Your task to perform on an android device: Go to location settings Image 0: 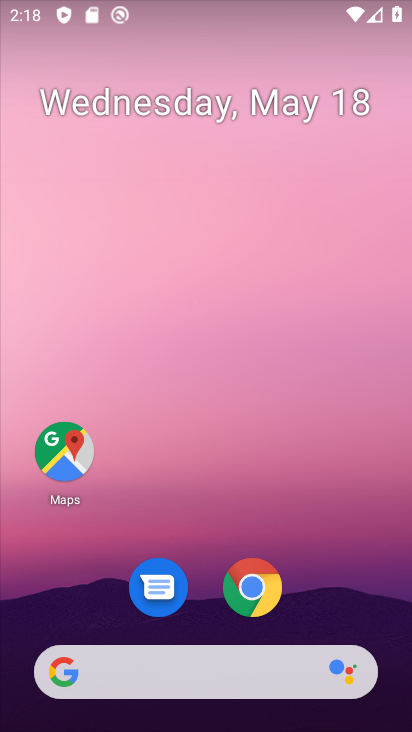
Step 0: drag from (366, 643) to (355, 85)
Your task to perform on an android device: Go to location settings Image 1: 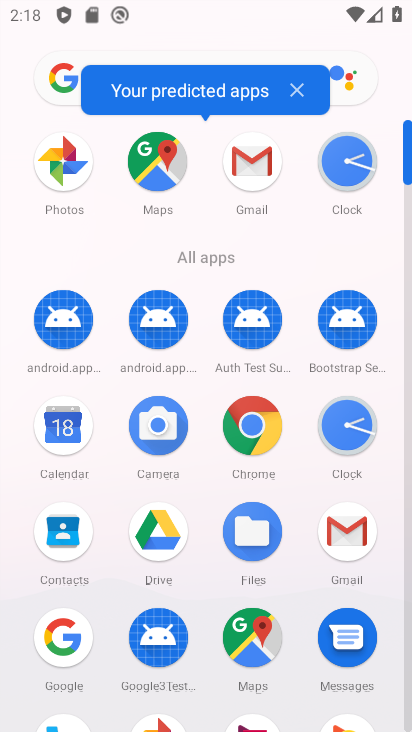
Step 1: drag from (293, 268) to (298, 81)
Your task to perform on an android device: Go to location settings Image 2: 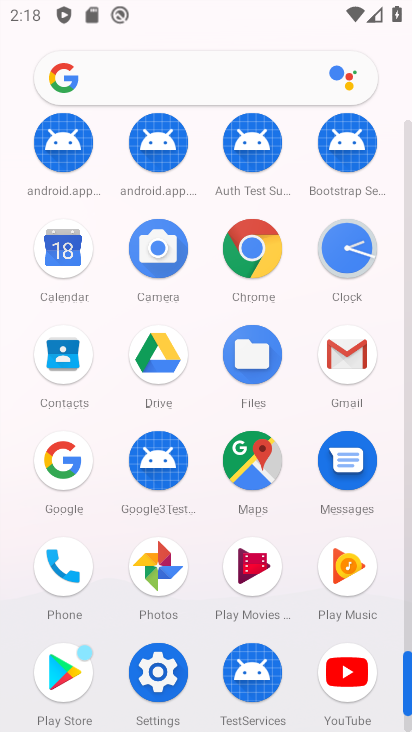
Step 2: click (151, 678)
Your task to perform on an android device: Go to location settings Image 3: 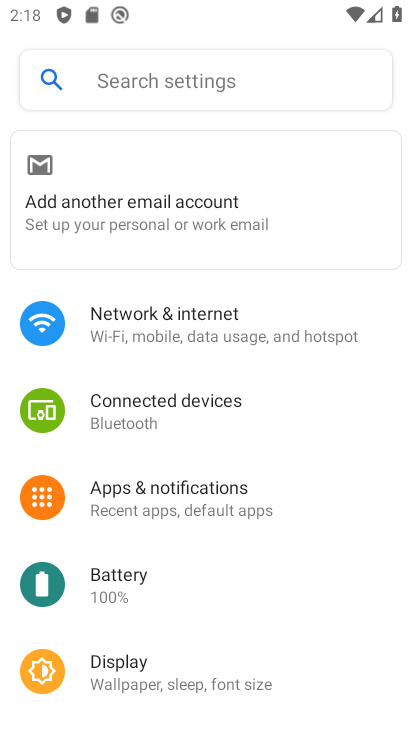
Step 3: drag from (264, 605) to (261, 244)
Your task to perform on an android device: Go to location settings Image 4: 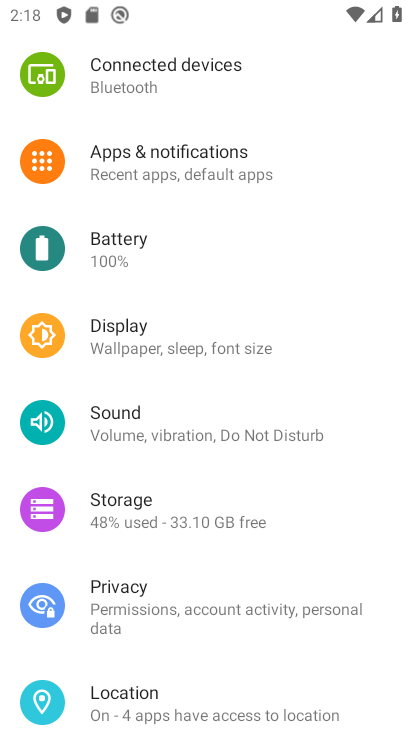
Step 4: drag from (213, 650) to (194, 286)
Your task to perform on an android device: Go to location settings Image 5: 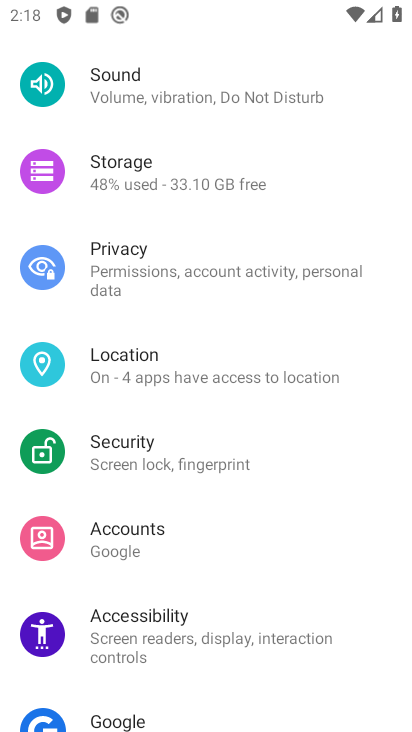
Step 5: click (148, 367)
Your task to perform on an android device: Go to location settings Image 6: 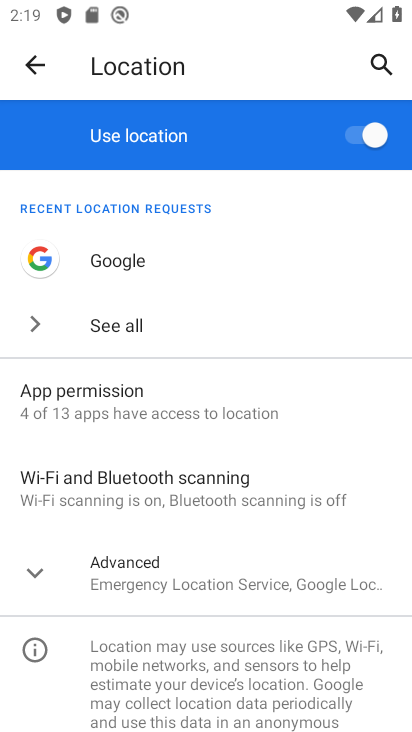
Step 6: task complete